Your task to perform on an android device: Open the calendar and show me this week's events? Image 0: 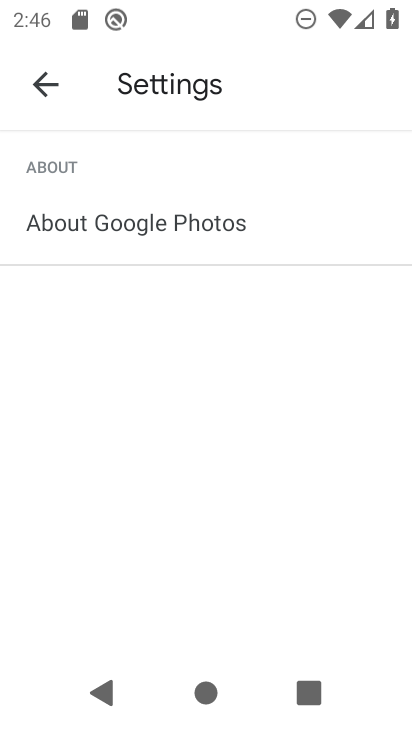
Step 0: press home button
Your task to perform on an android device: Open the calendar and show me this week's events? Image 1: 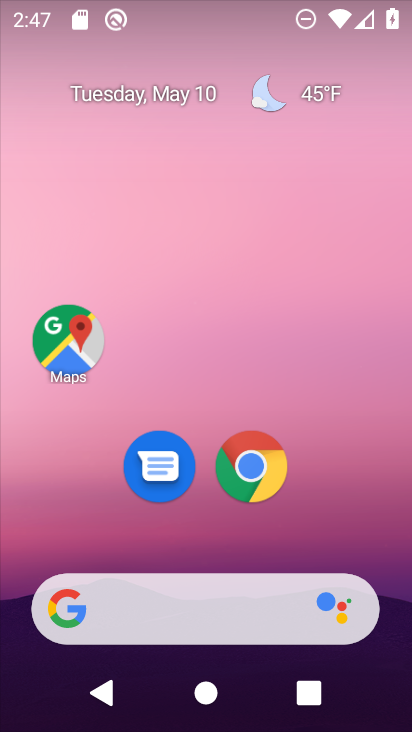
Step 1: drag from (345, 496) to (328, 84)
Your task to perform on an android device: Open the calendar and show me this week's events? Image 2: 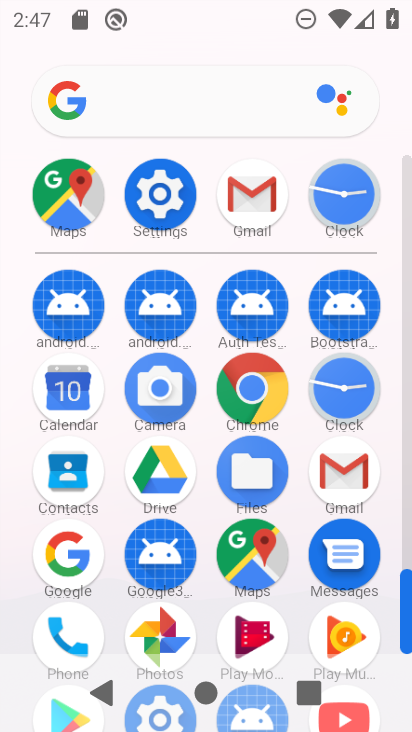
Step 2: click (79, 395)
Your task to perform on an android device: Open the calendar and show me this week's events? Image 3: 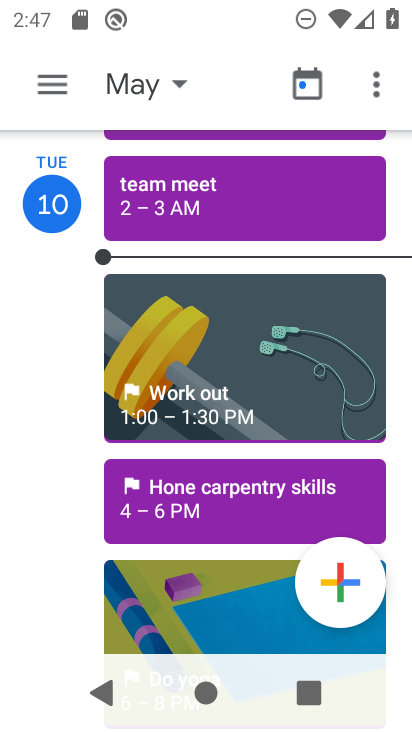
Step 3: click (145, 94)
Your task to perform on an android device: Open the calendar and show me this week's events? Image 4: 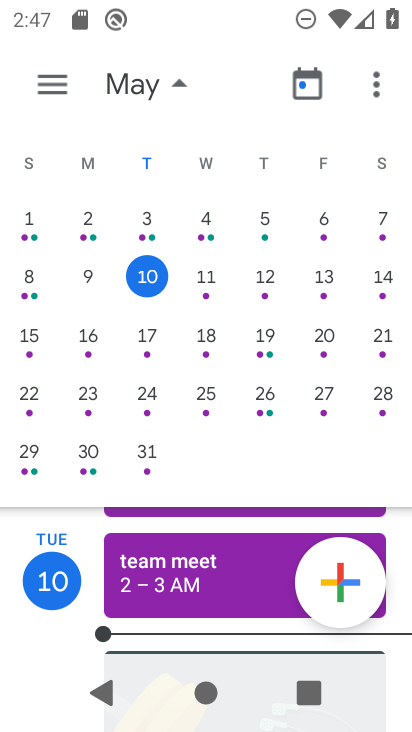
Step 4: click (201, 280)
Your task to perform on an android device: Open the calendar and show me this week's events? Image 5: 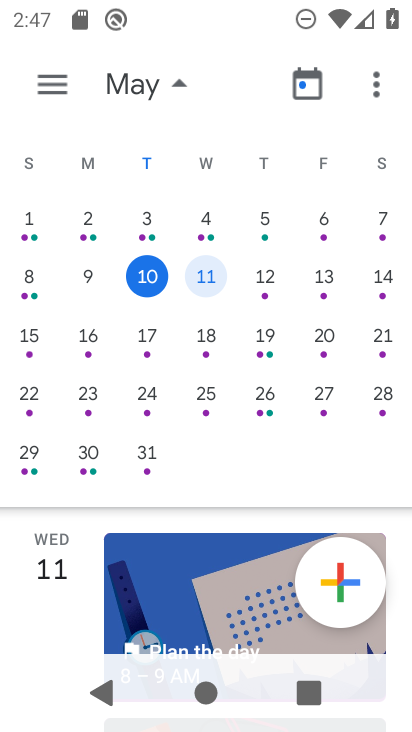
Step 5: click (268, 294)
Your task to perform on an android device: Open the calendar and show me this week's events? Image 6: 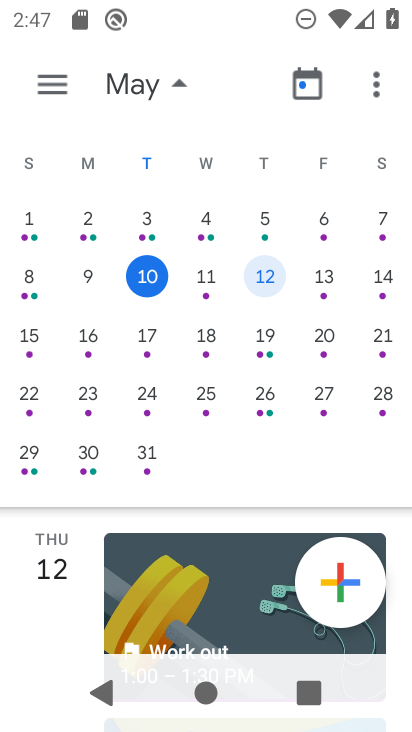
Step 6: click (319, 300)
Your task to perform on an android device: Open the calendar and show me this week's events? Image 7: 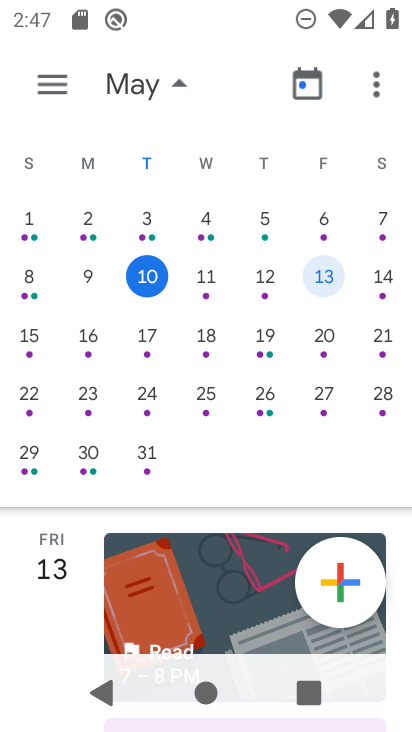
Step 7: click (378, 289)
Your task to perform on an android device: Open the calendar and show me this week's events? Image 8: 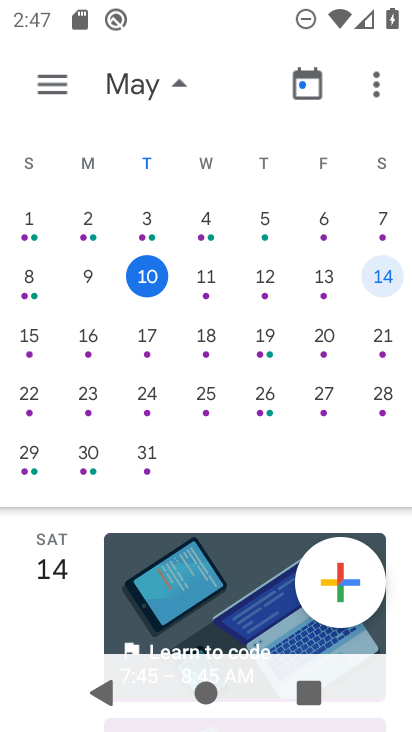
Step 8: task complete